Your task to perform on an android device: Open eBay Image 0: 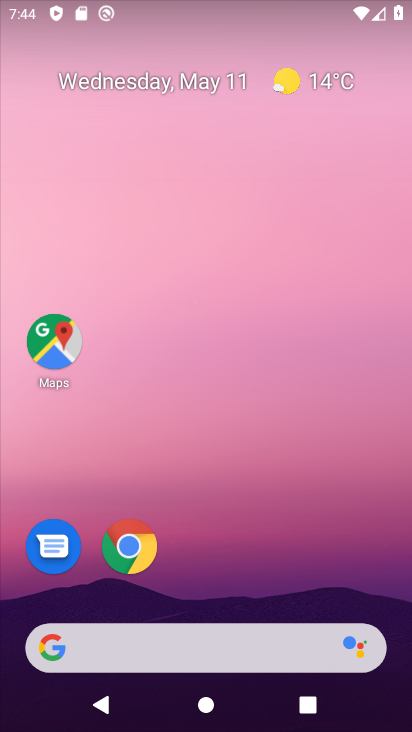
Step 0: click (141, 541)
Your task to perform on an android device: Open eBay Image 1: 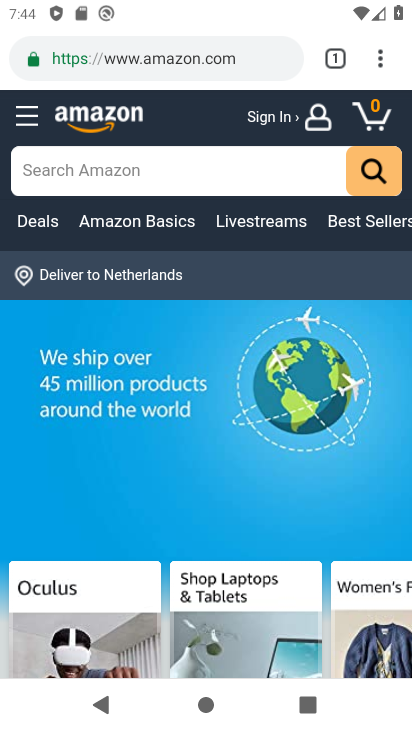
Step 1: click (263, 55)
Your task to perform on an android device: Open eBay Image 2: 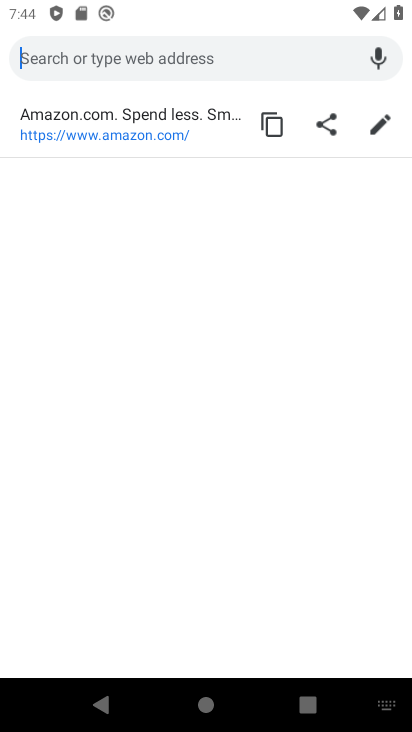
Step 2: type "ebay"
Your task to perform on an android device: Open eBay Image 3: 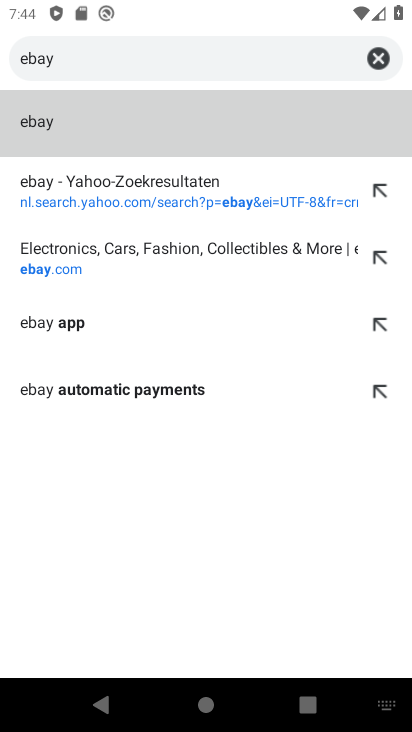
Step 3: click (51, 198)
Your task to perform on an android device: Open eBay Image 4: 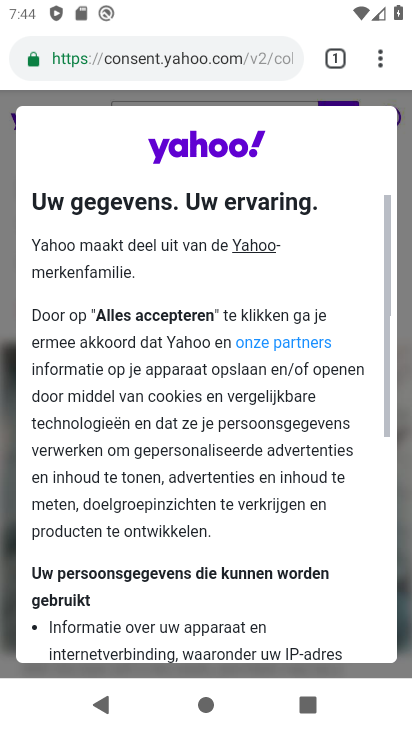
Step 4: click (180, 52)
Your task to perform on an android device: Open eBay Image 5: 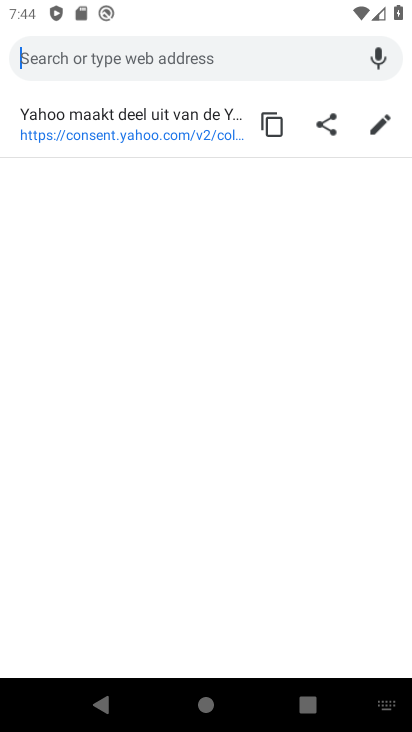
Step 5: type "ebay"
Your task to perform on an android device: Open eBay Image 6: 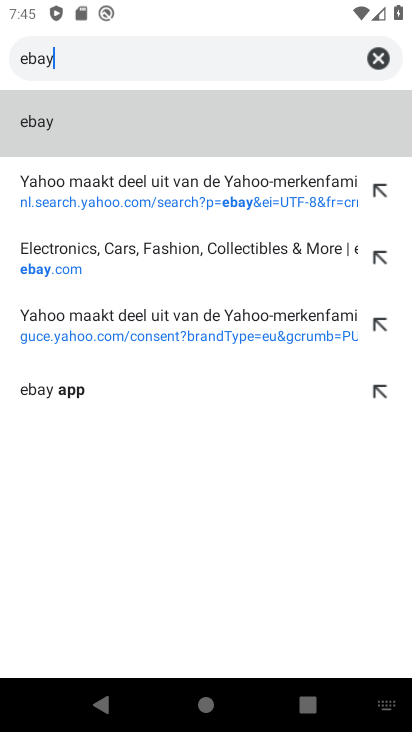
Step 6: click (28, 130)
Your task to perform on an android device: Open eBay Image 7: 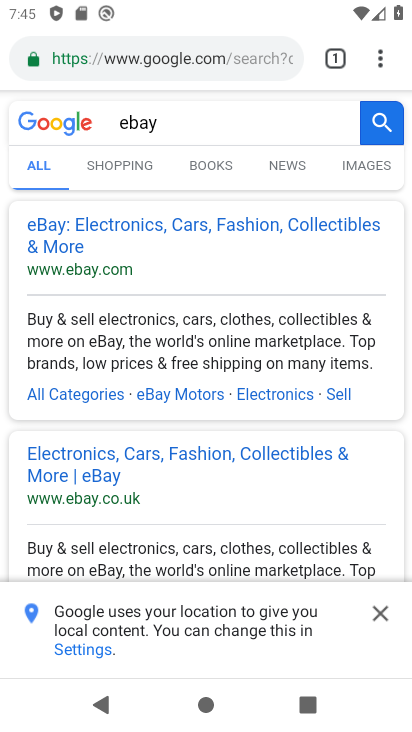
Step 7: click (72, 231)
Your task to perform on an android device: Open eBay Image 8: 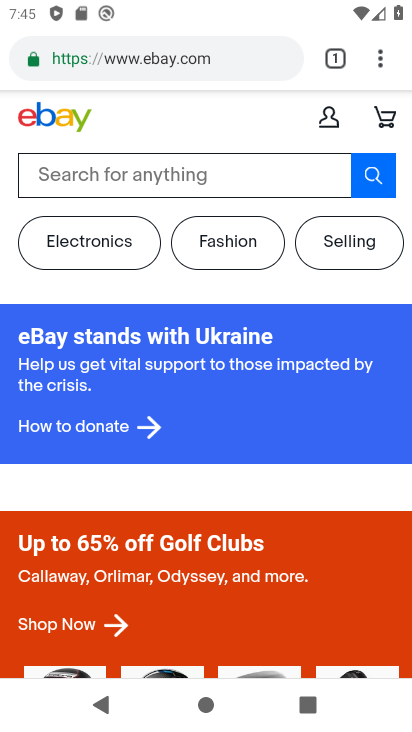
Step 8: task complete